Your task to perform on an android device: remove spam from my inbox in the gmail app Image 0: 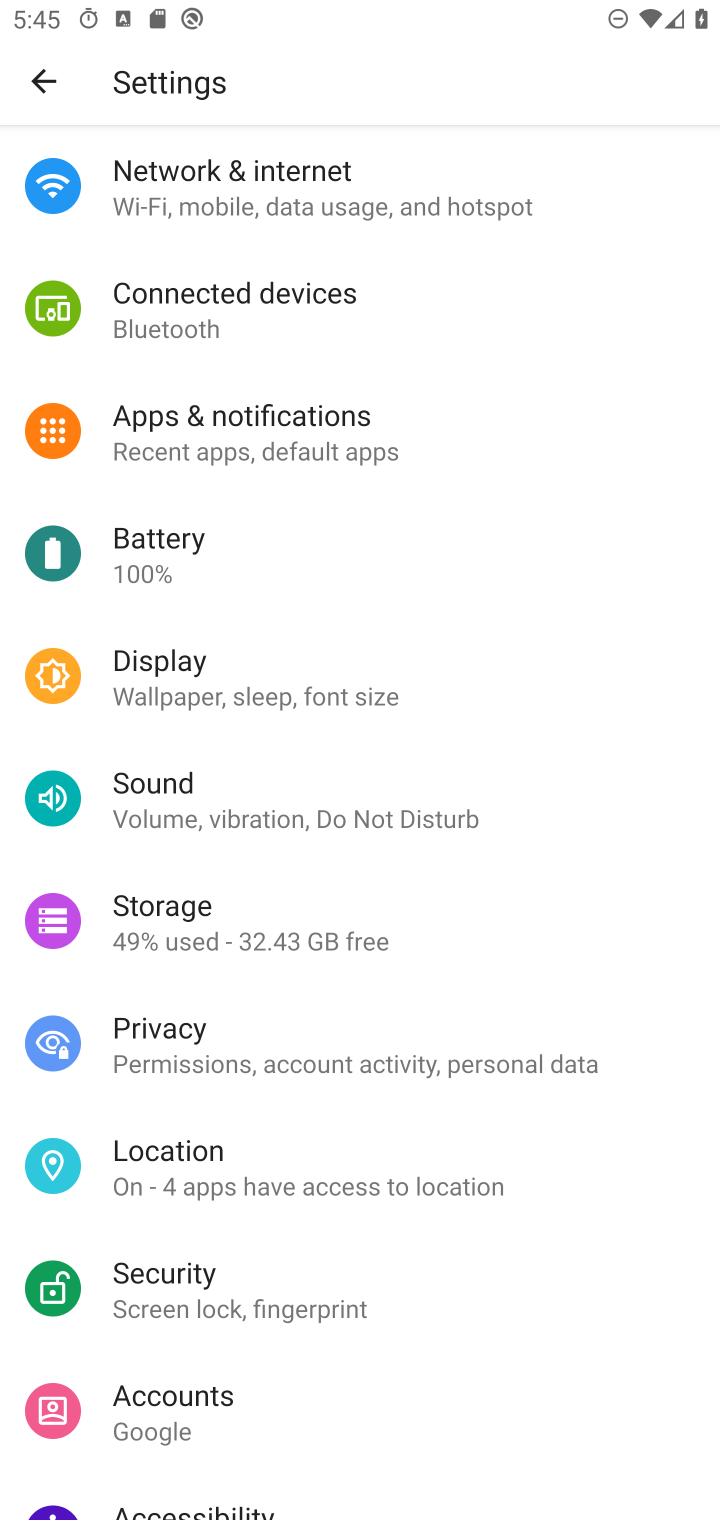
Step 0: press home button
Your task to perform on an android device: remove spam from my inbox in the gmail app Image 1: 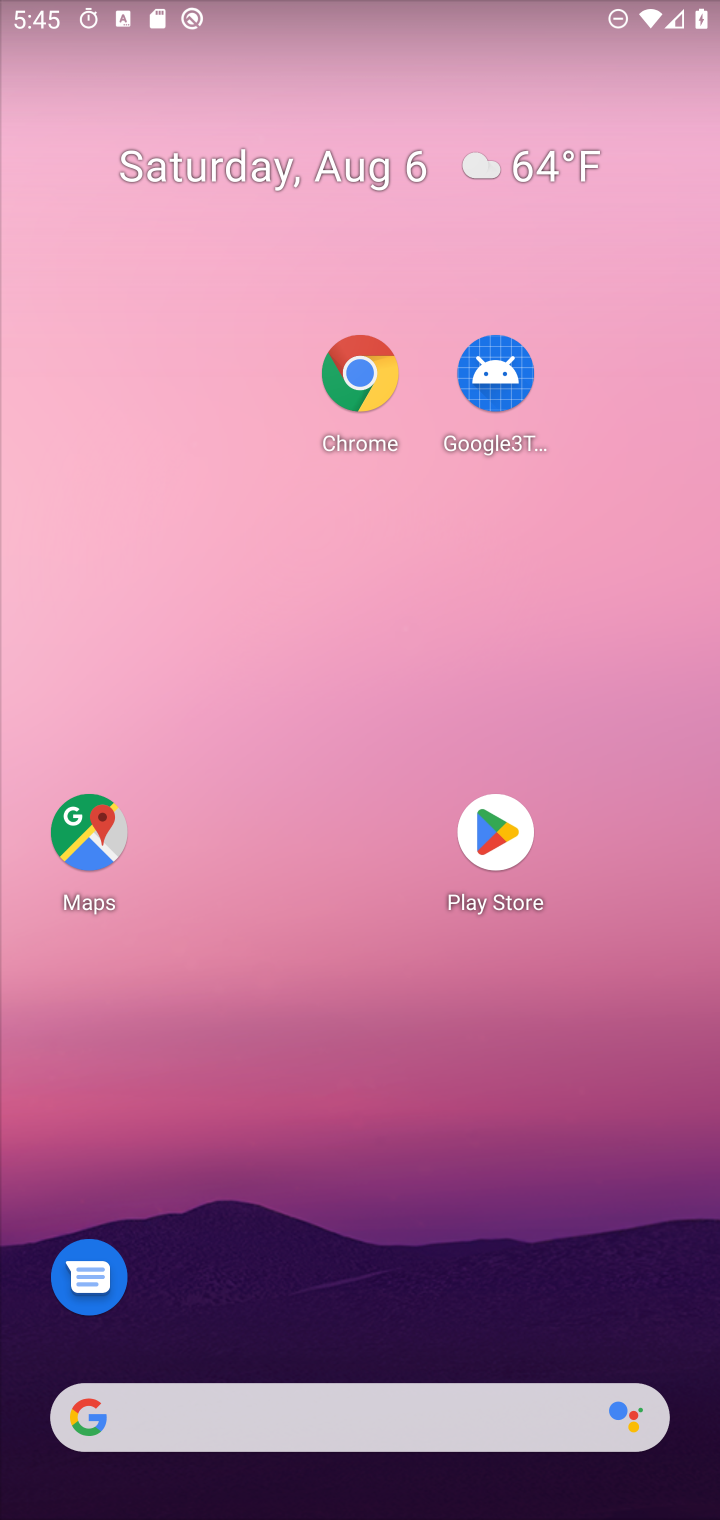
Step 1: drag from (338, 1387) to (283, 23)
Your task to perform on an android device: remove spam from my inbox in the gmail app Image 2: 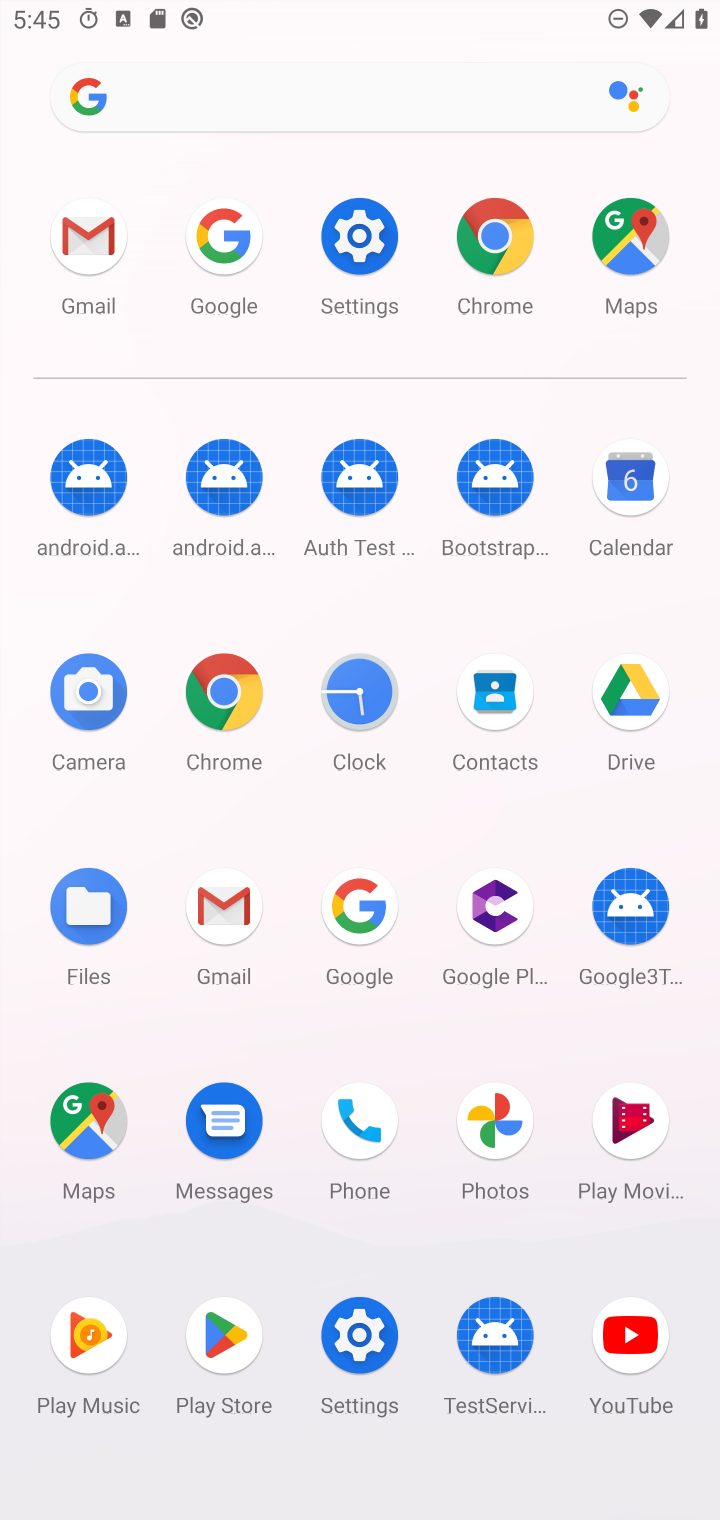
Step 2: click (235, 930)
Your task to perform on an android device: remove spam from my inbox in the gmail app Image 3: 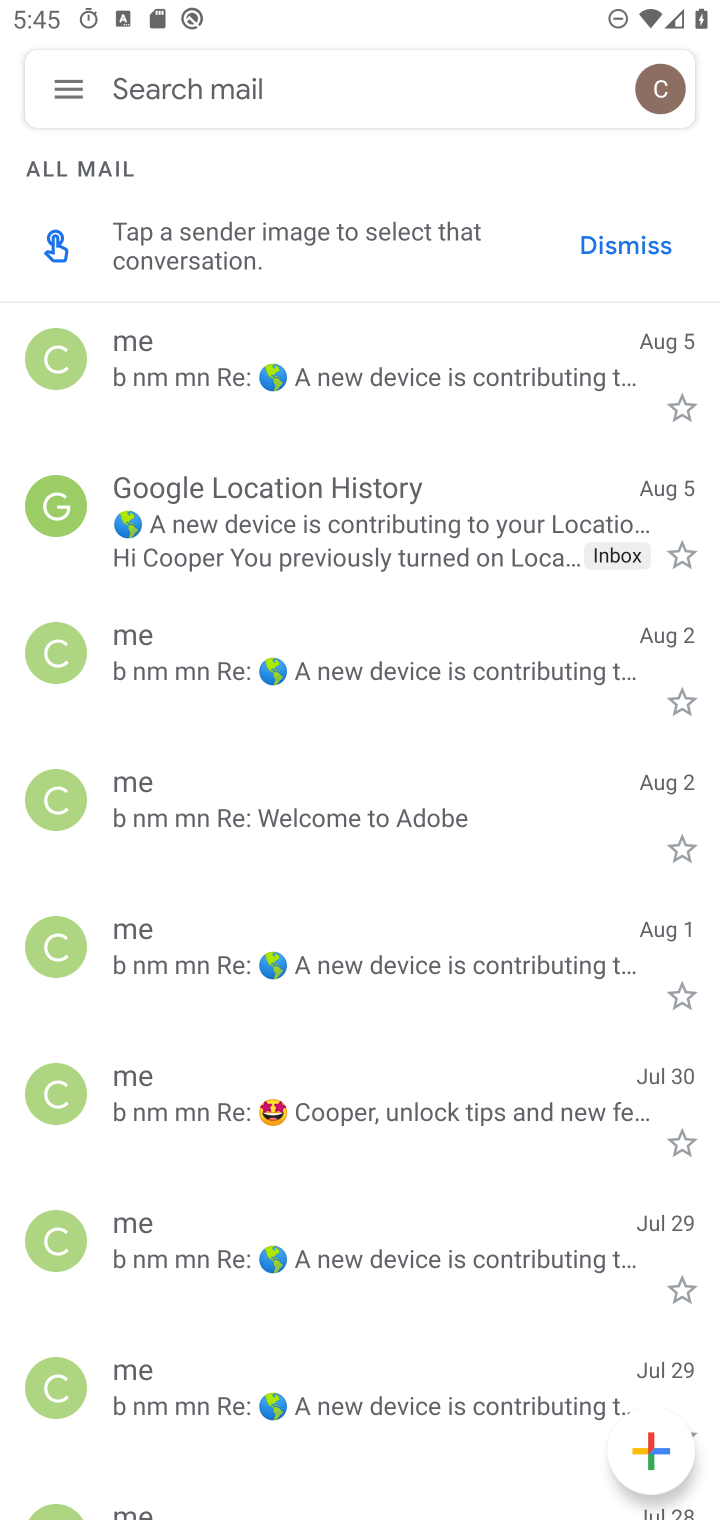
Step 3: click (73, 91)
Your task to perform on an android device: remove spam from my inbox in the gmail app Image 4: 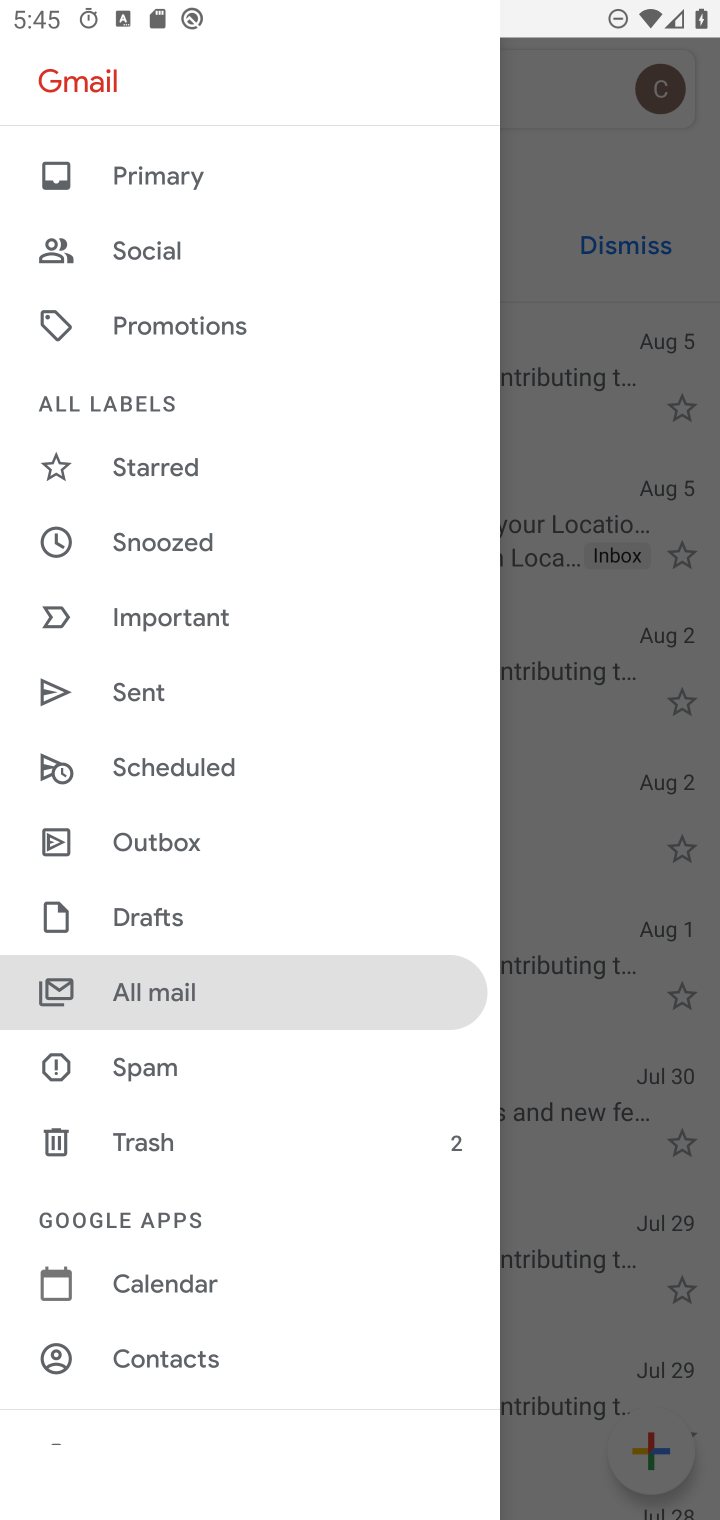
Step 4: click (155, 1062)
Your task to perform on an android device: remove spam from my inbox in the gmail app Image 5: 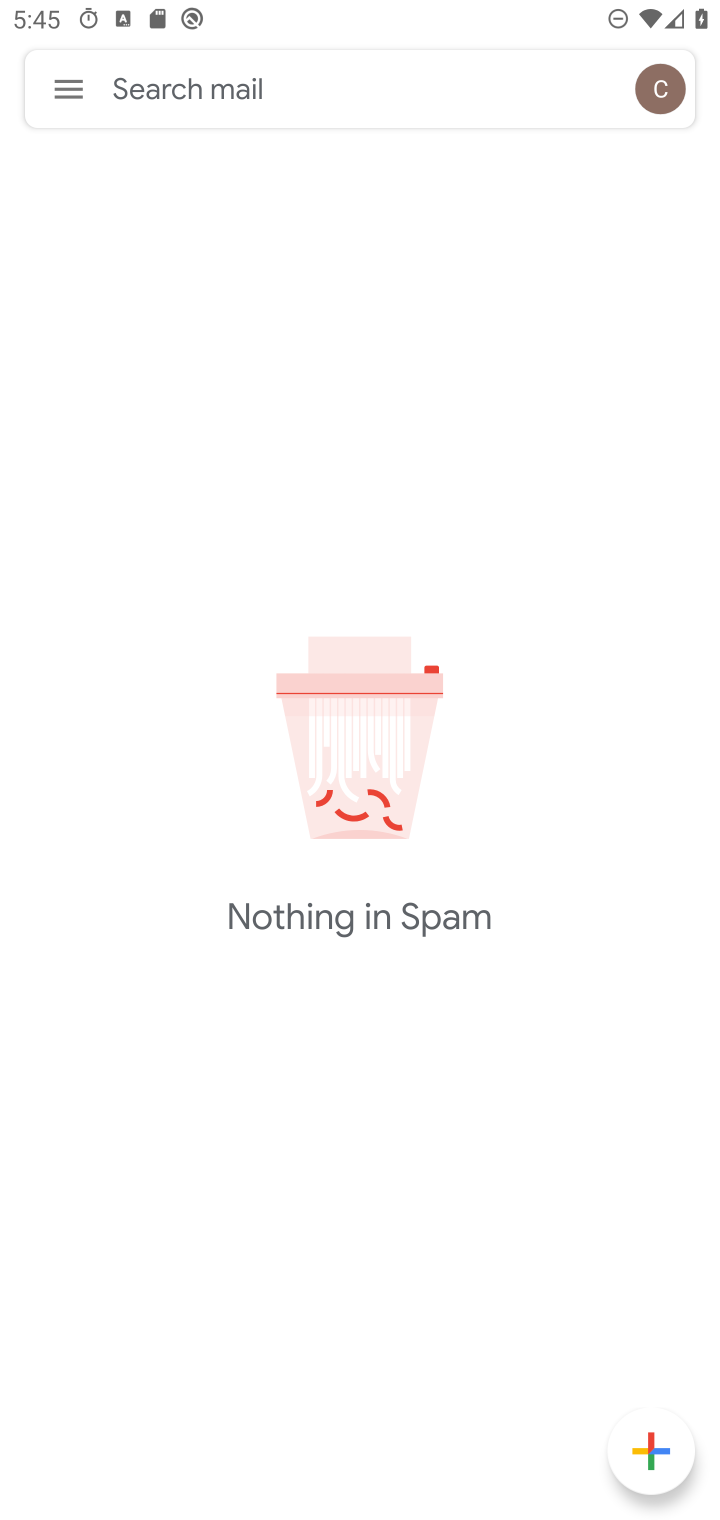
Step 5: task complete